Your task to perform on an android device: turn off wifi Image 0: 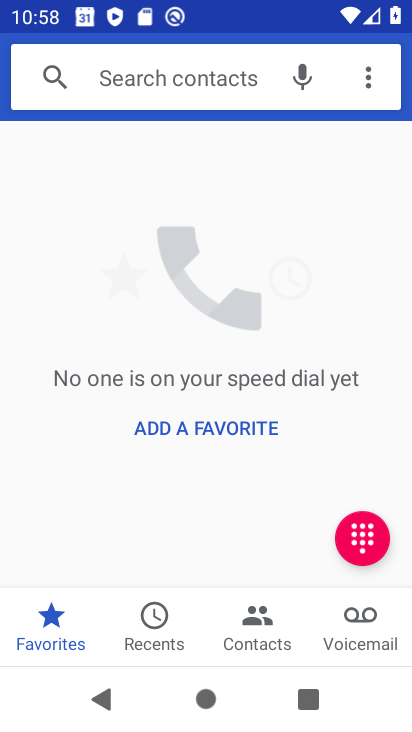
Step 0: press home button
Your task to perform on an android device: turn off wifi Image 1: 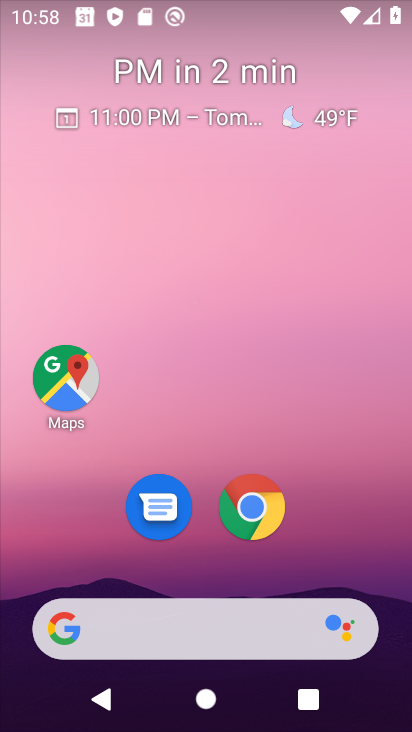
Step 1: drag from (346, 529) to (358, 115)
Your task to perform on an android device: turn off wifi Image 2: 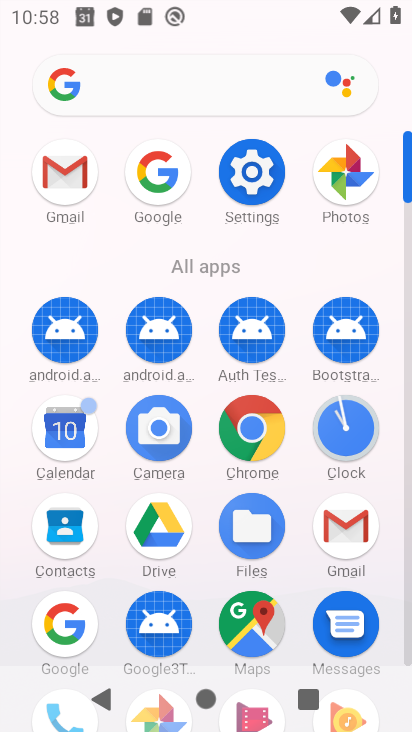
Step 2: click (256, 175)
Your task to perform on an android device: turn off wifi Image 3: 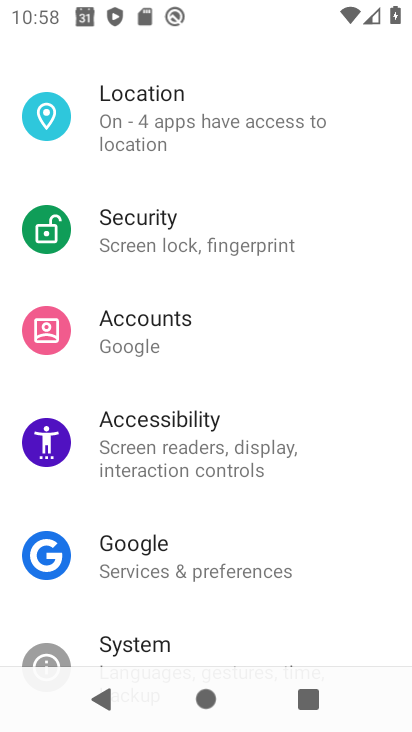
Step 3: drag from (306, 99) to (198, 490)
Your task to perform on an android device: turn off wifi Image 4: 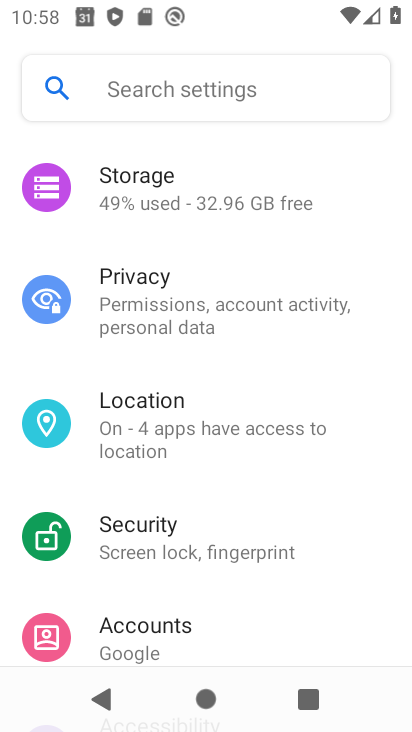
Step 4: drag from (207, 115) to (194, 513)
Your task to perform on an android device: turn off wifi Image 5: 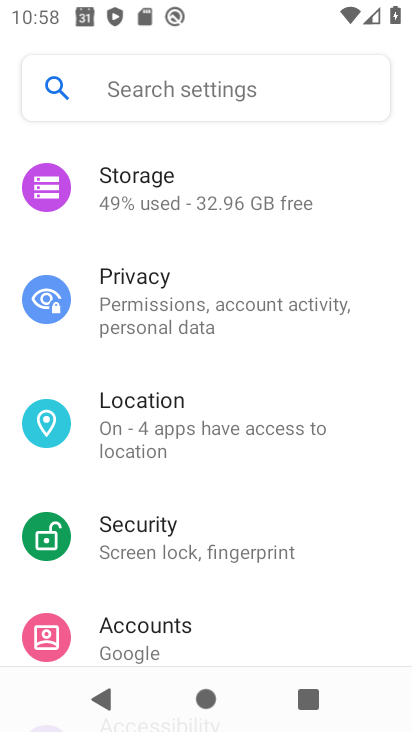
Step 5: drag from (194, 160) to (80, 546)
Your task to perform on an android device: turn off wifi Image 6: 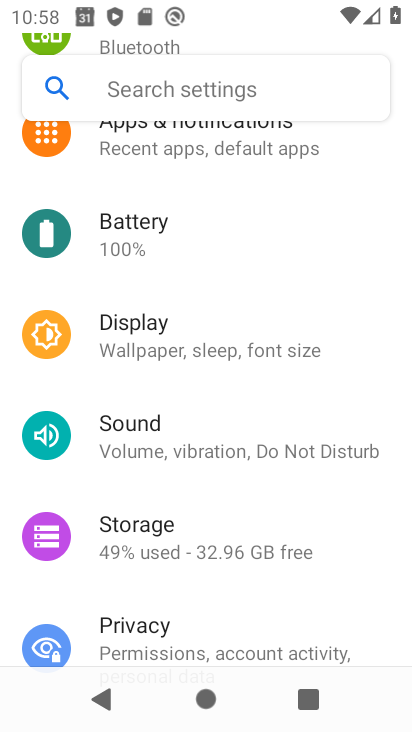
Step 6: drag from (250, 155) to (176, 570)
Your task to perform on an android device: turn off wifi Image 7: 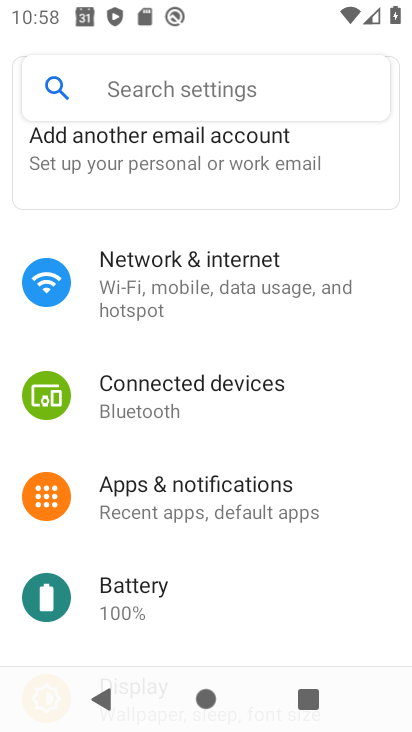
Step 7: click (244, 278)
Your task to perform on an android device: turn off wifi Image 8: 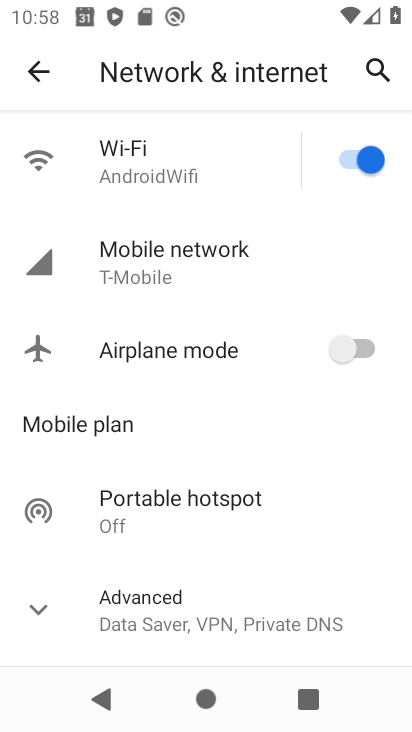
Step 8: click (370, 151)
Your task to perform on an android device: turn off wifi Image 9: 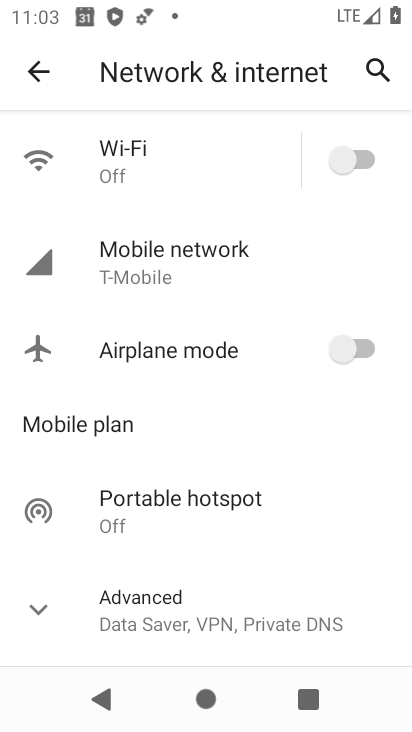
Step 9: task complete